Your task to perform on an android device: toggle airplane mode Image 0: 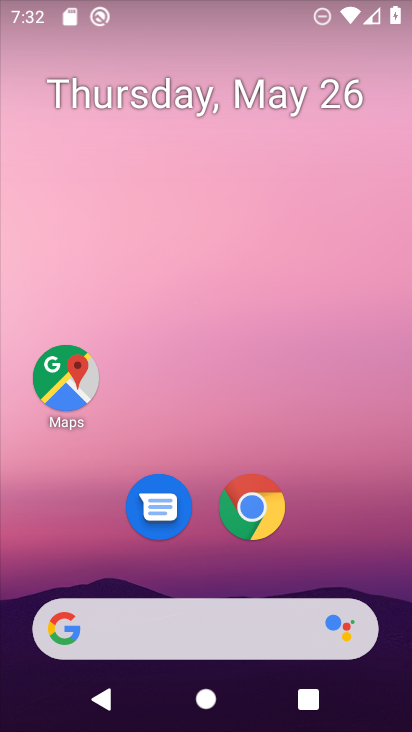
Step 0: drag from (191, 575) to (181, 6)
Your task to perform on an android device: toggle airplane mode Image 1: 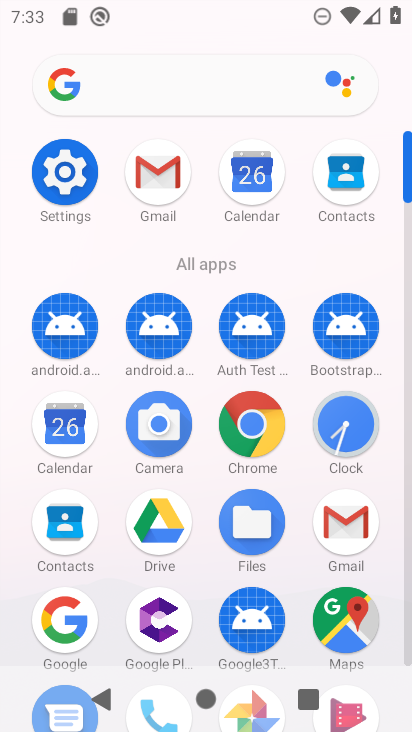
Step 1: click (56, 180)
Your task to perform on an android device: toggle airplane mode Image 2: 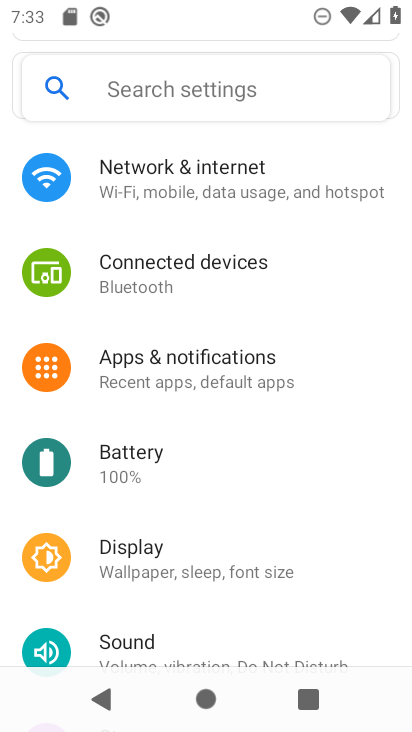
Step 2: click (160, 194)
Your task to perform on an android device: toggle airplane mode Image 3: 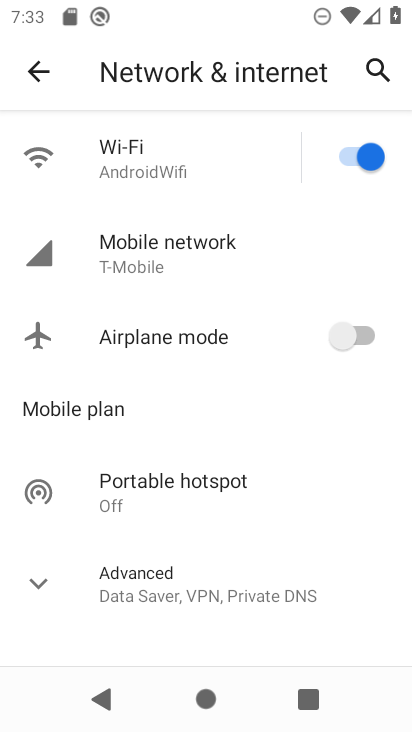
Step 3: click (366, 340)
Your task to perform on an android device: toggle airplane mode Image 4: 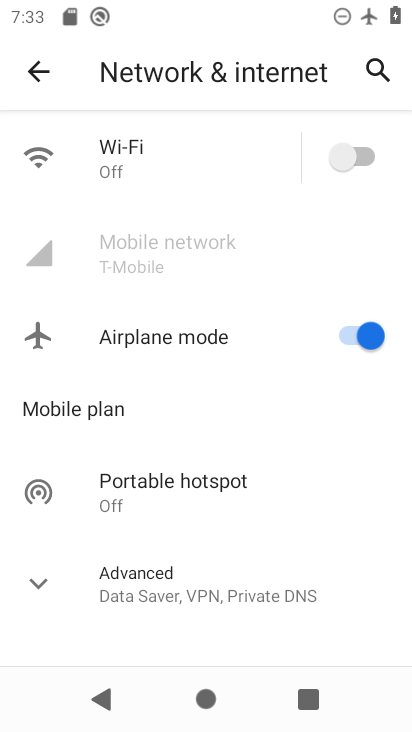
Step 4: task complete